Your task to perform on an android device: Open the Play Movies app and select the watchlist tab. Image 0: 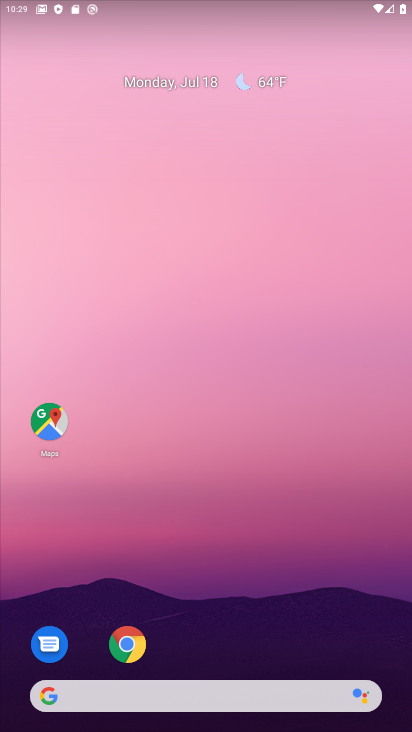
Step 0: drag from (260, 619) to (234, 84)
Your task to perform on an android device: Open the Play Movies app and select the watchlist tab. Image 1: 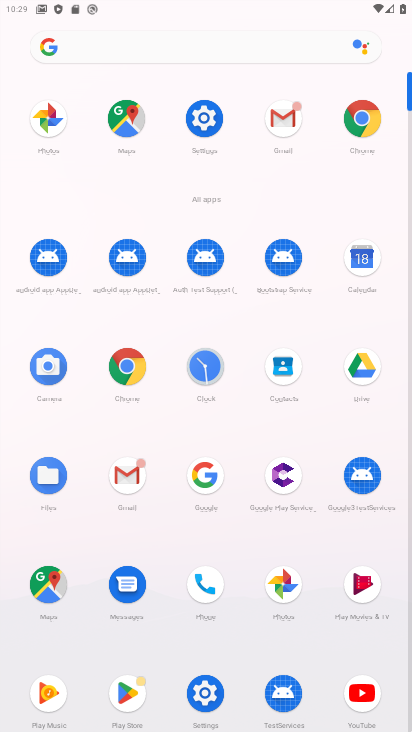
Step 1: click (357, 592)
Your task to perform on an android device: Open the Play Movies app and select the watchlist tab. Image 2: 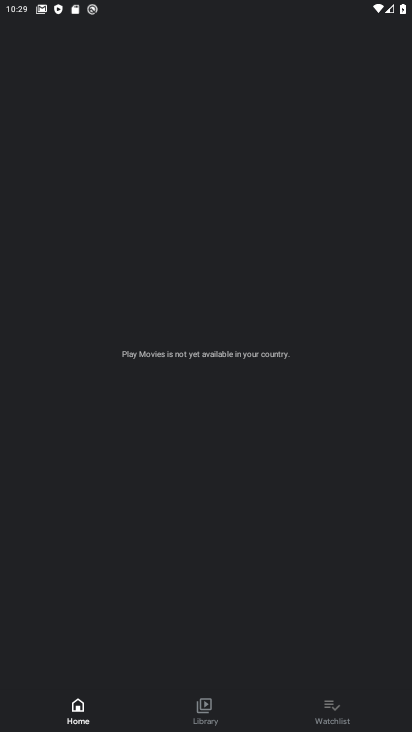
Step 2: click (320, 706)
Your task to perform on an android device: Open the Play Movies app and select the watchlist tab. Image 3: 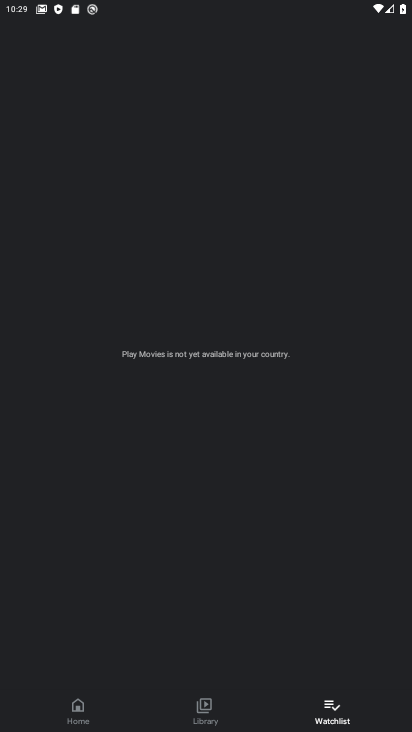
Step 3: task complete